Your task to perform on an android device: Open the phone app and click the voicemail tab. Image 0: 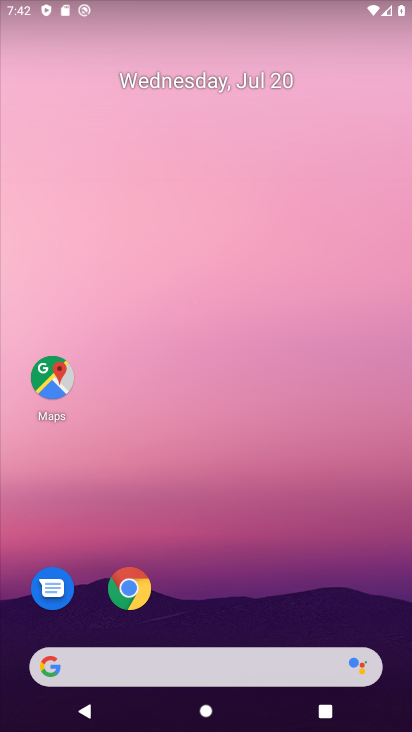
Step 0: drag from (278, 594) to (255, 182)
Your task to perform on an android device: Open the phone app and click the voicemail tab. Image 1: 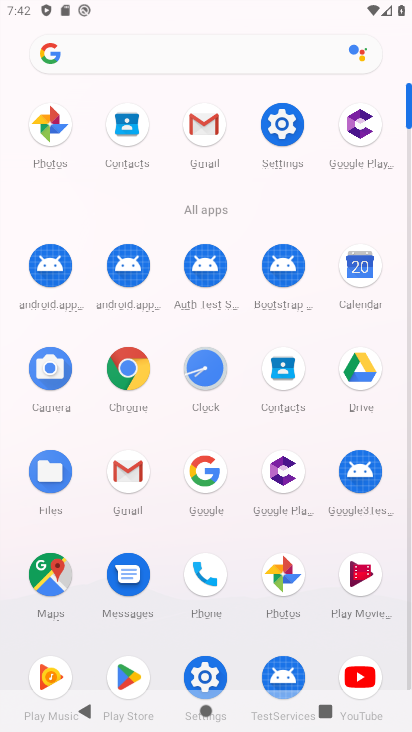
Step 1: click (205, 569)
Your task to perform on an android device: Open the phone app and click the voicemail tab. Image 2: 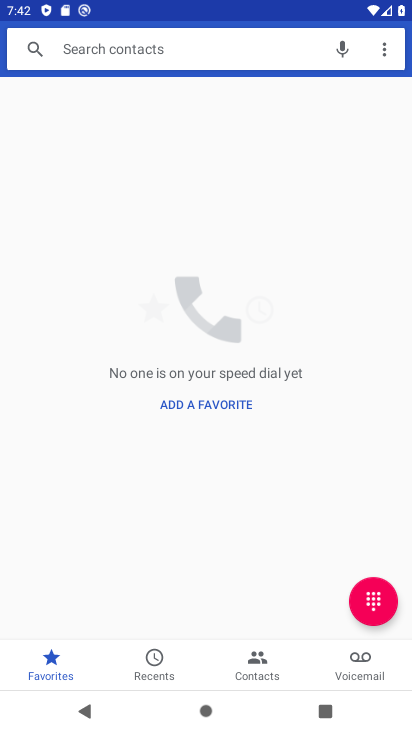
Step 2: click (356, 662)
Your task to perform on an android device: Open the phone app and click the voicemail tab. Image 3: 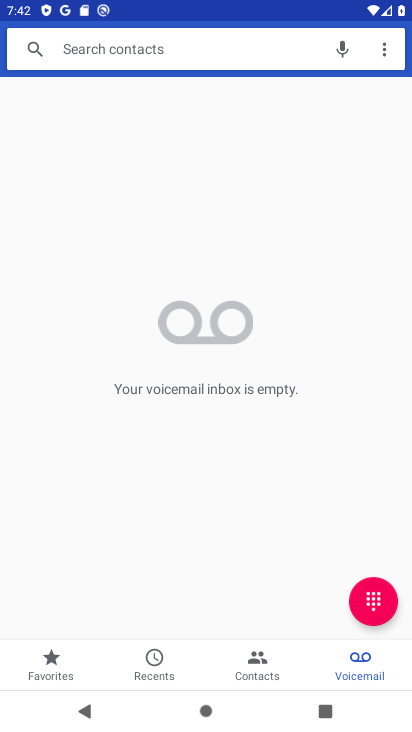
Step 3: task complete